Your task to perform on an android device: open the mobile data screen to see how much data has been used Image 0: 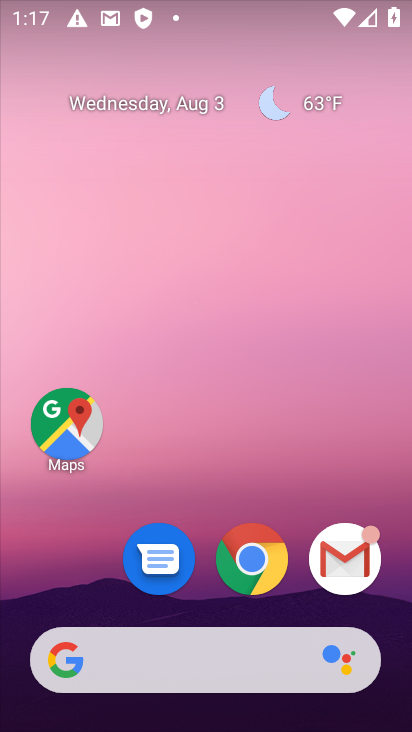
Step 0: press home button
Your task to perform on an android device: open the mobile data screen to see how much data has been used Image 1: 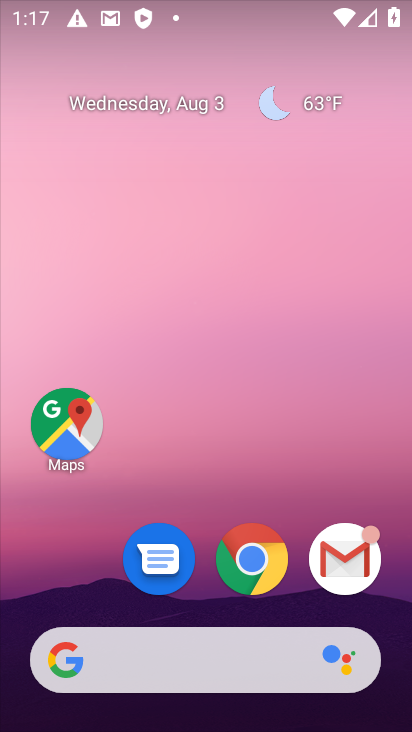
Step 1: drag from (255, 715) to (227, 167)
Your task to perform on an android device: open the mobile data screen to see how much data has been used Image 2: 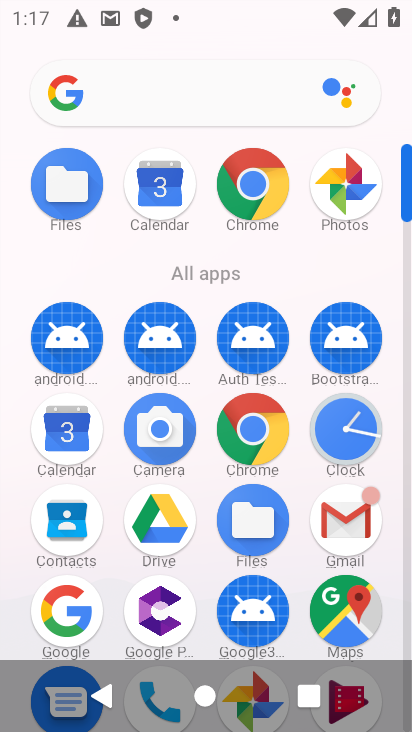
Step 2: drag from (209, 575) to (170, 195)
Your task to perform on an android device: open the mobile data screen to see how much data has been used Image 3: 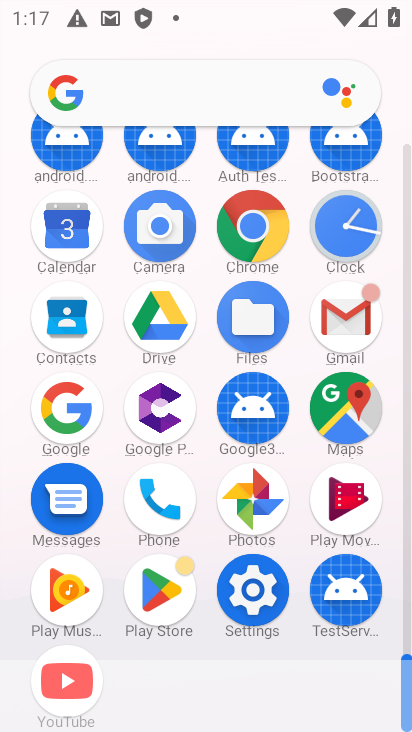
Step 3: drag from (254, 598) to (318, 603)
Your task to perform on an android device: open the mobile data screen to see how much data has been used Image 4: 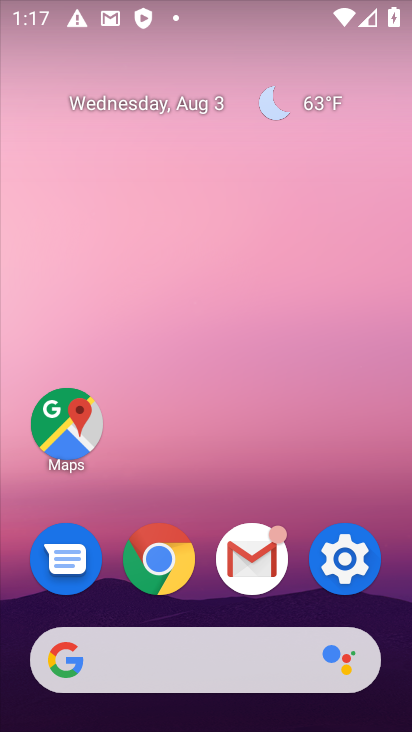
Step 4: click (341, 562)
Your task to perform on an android device: open the mobile data screen to see how much data has been used Image 5: 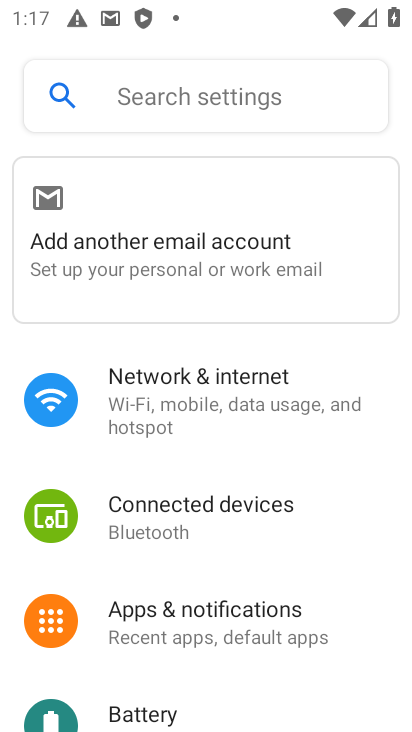
Step 5: click (149, 95)
Your task to perform on an android device: open the mobile data screen to see how much data has been used Image 6: 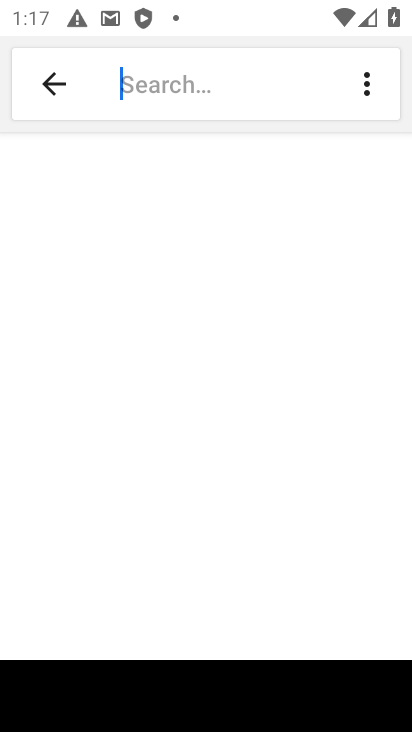
Step 6: drag from (369, 699) to (349, 634)
Your task to perform on an android device: open the mobile data screen to see how much data has been used Image 7: 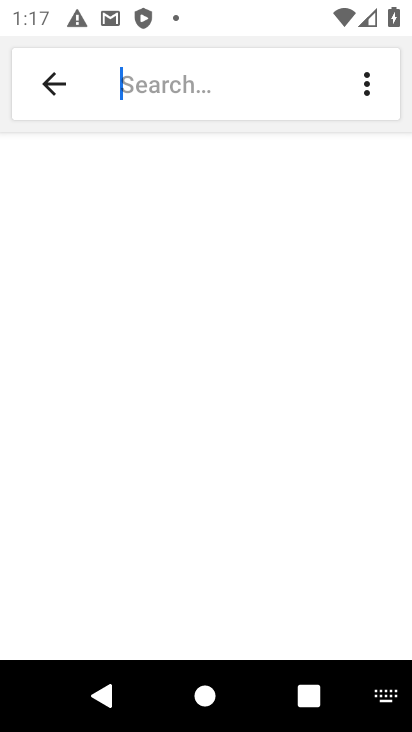
Step 7: click (381, 704)
Your task to perform on an android device: open the mobile data screen to see how much data has been used Image 8: 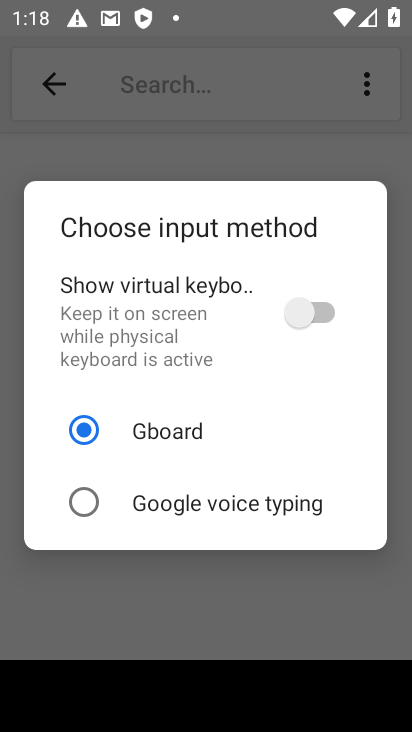
Step 8: click (316, 303)
Your task to perform on an android device: open the mobile data screen to see how much data has been used Image 9: 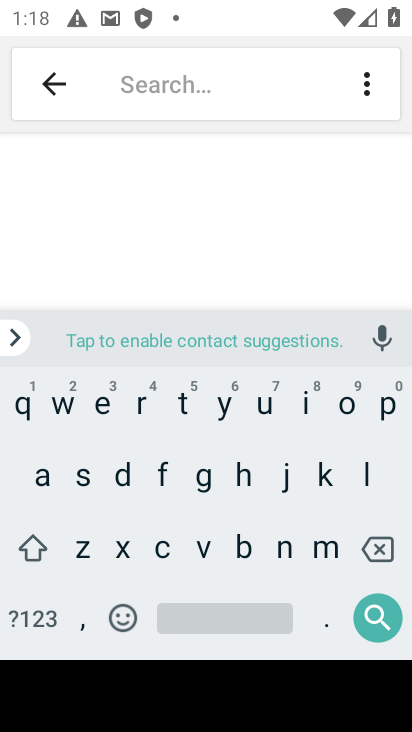
Step 9: click (123, 485)
Your task to perform on an android device: open the mobile data screen to see how much data has been used Image 10: 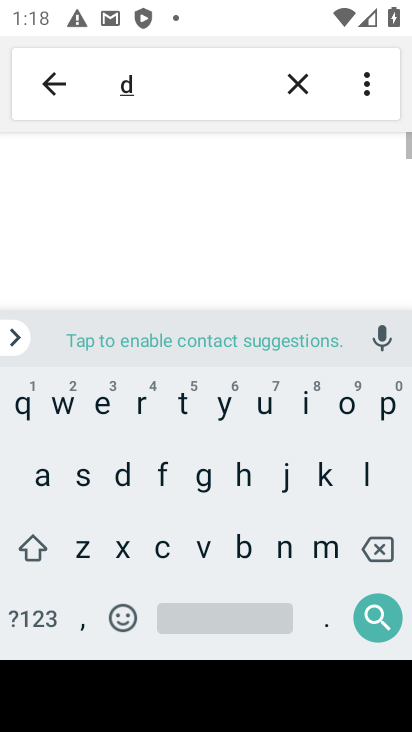
Step 10: click (42, 477)
Your task to perform on an android device: open the mobile data screen to see how much data has been used Image 11: 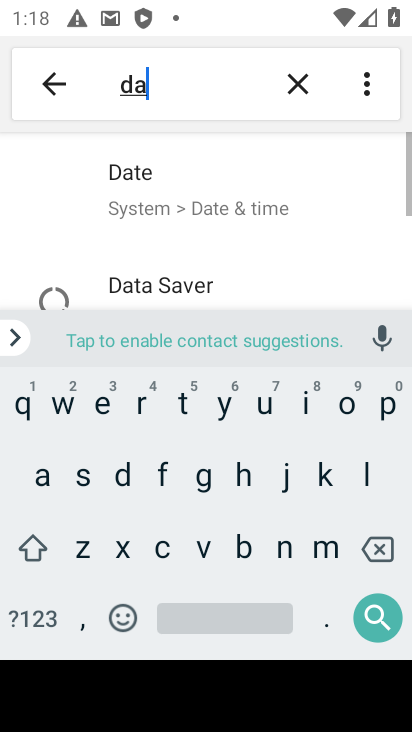
Step 11: click (185, 397)
Your task to perform on an android device: open the mobile data screen to see how much data has been used Image 12: 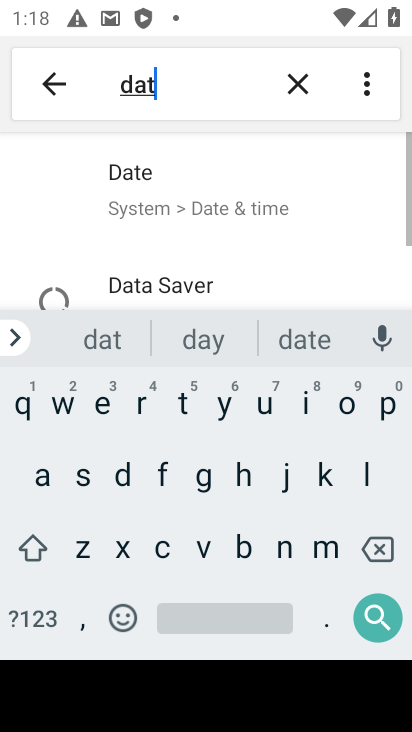
Step 12: click (35, 473)
Your task to perform on an android device: open the mobile data screen to see how much data has been used Image 13: 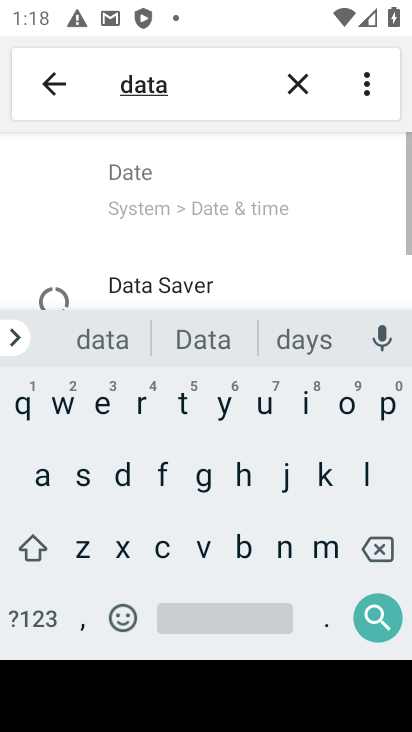
Step 13: click (229, 621)
Your task to perform on an android device: open the mobile data screen to see how much data has been used Image 14: 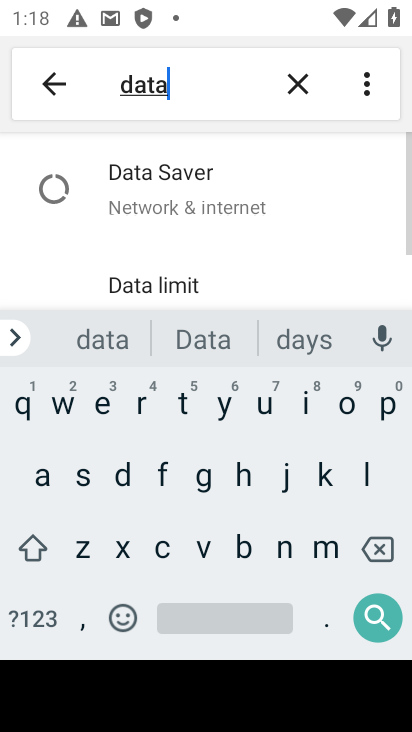
Step 14: click (259, 407)
Your task to perform on an android device: open the mobile data screen to see how much data has been used Image 15: 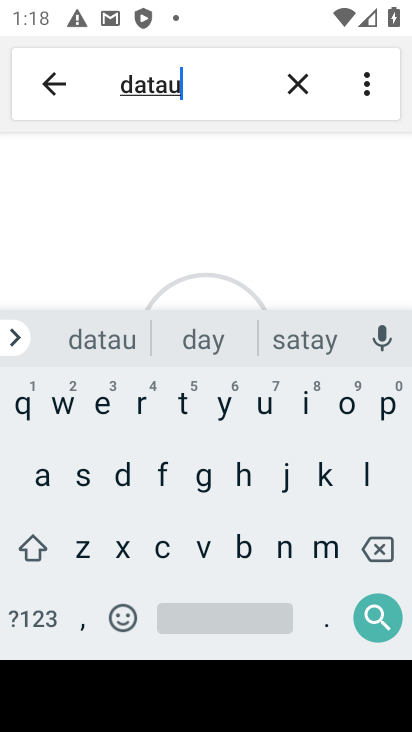
Step 15: click (386, 538)
Your task to perform on an android device: open the mobile data screen to see how much data has been used Image 16: 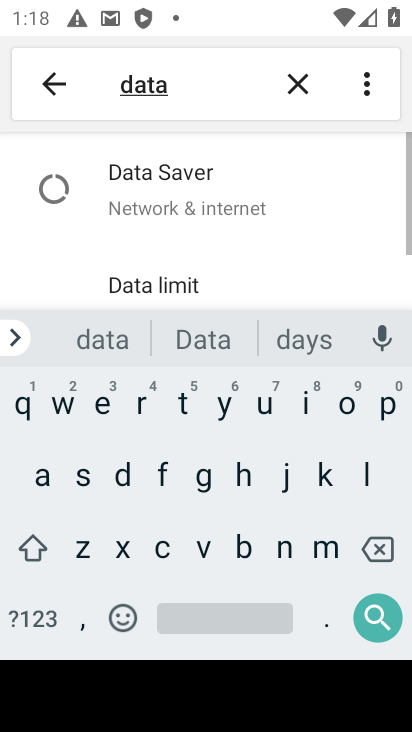
Step 16: click (200, 623)
Your task to perform on an android device: open the mobile data screen to see how much data has been used Image 17: 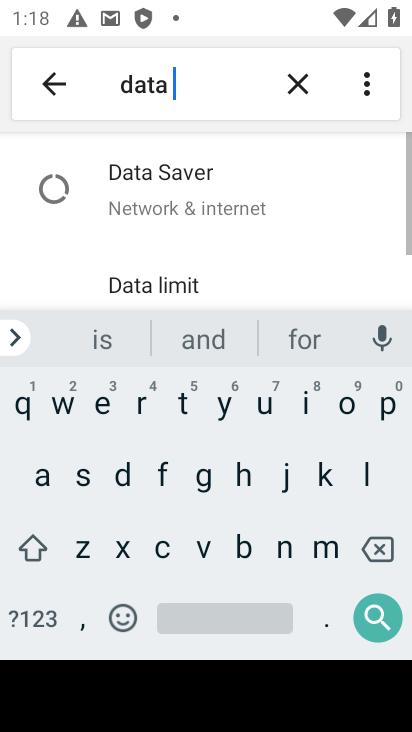
Step 17: click (258, 413)
Your task to perform on an android device: open the mobile data screen to see how much data has been used Image 18: 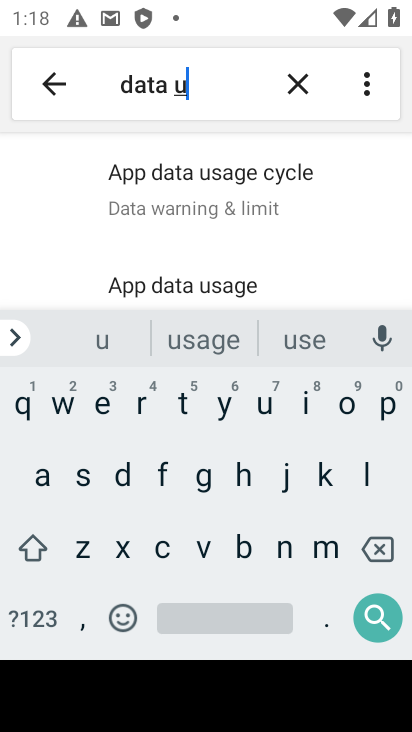
Step 18: click (177, 275)
Your task to perform on an android device: open the mobile data screen to see how much data has been used Image 19: 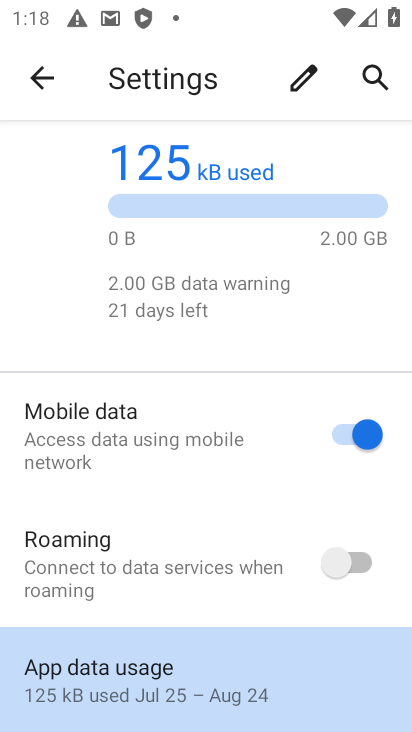
Step 19: click (118, 688)
Your task to perform on an android device: open the mobile data screen to see how much data has been used Image 20: 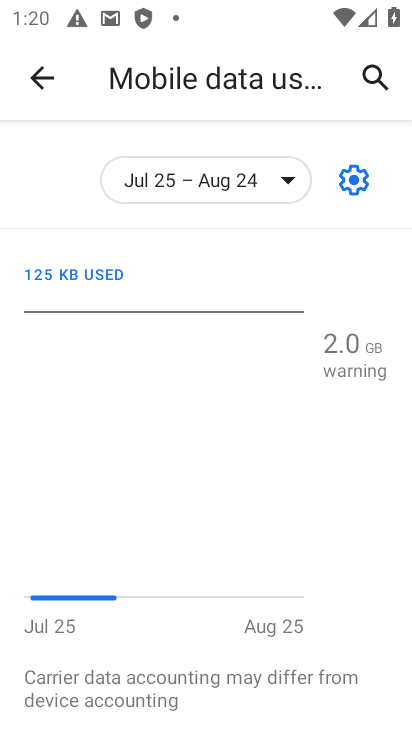
Step 20: task complete